Your task to perform on an android device: turn on data saver in the chrome app Image 0: 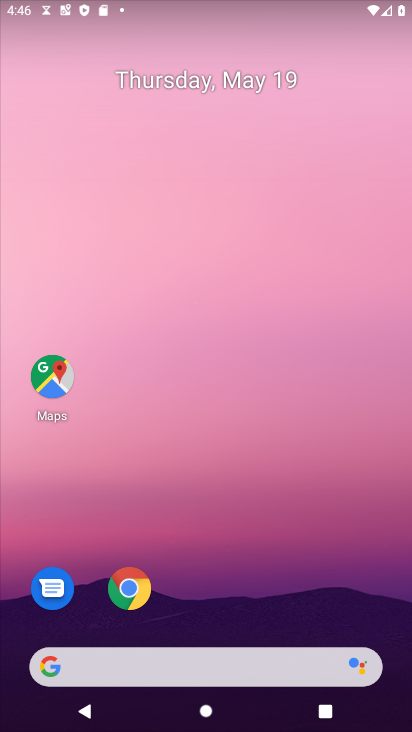
Step 0: click (138, 600)
Your task to perform on an android device: turn on data saver in the chrome app Image 1: 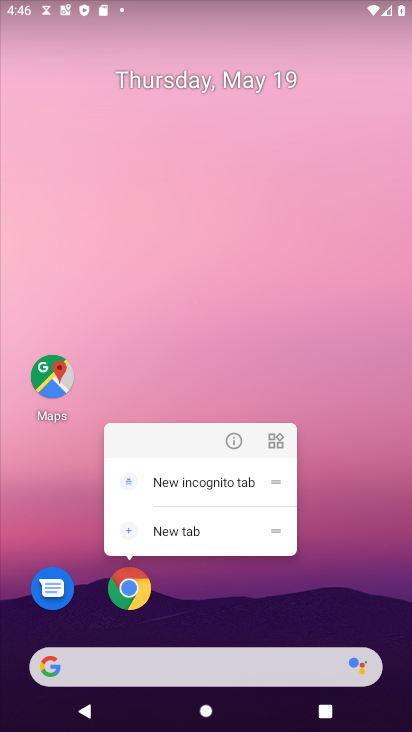
Step 1: click (133, 591)
Your task to perform on an android device: turn on data saver in the chrome app Image 2: 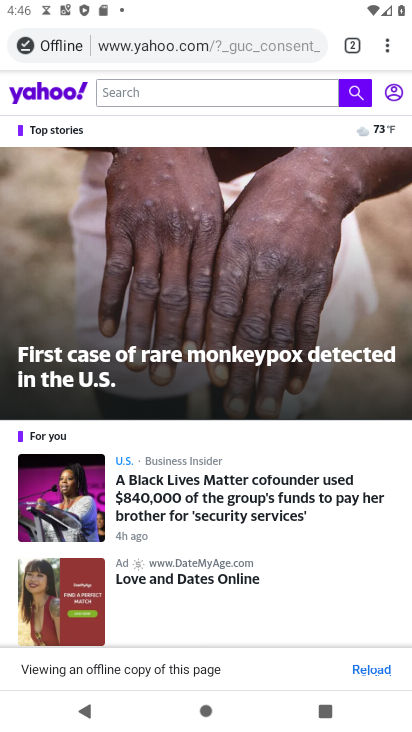
Step 2: click (385, 39)
Your task to perform on an android device: turn on data saver in the chrome app Image 3: 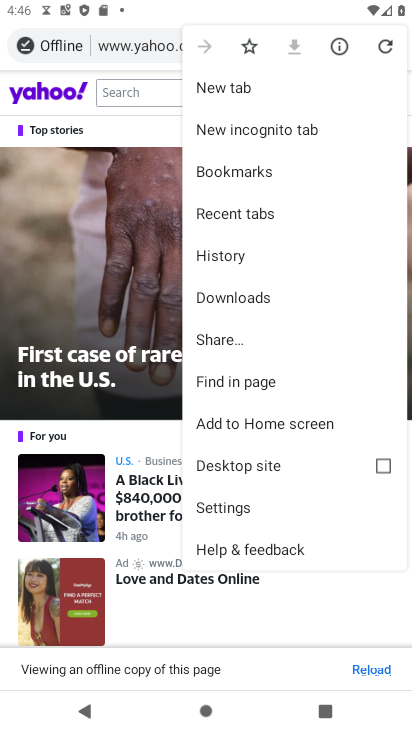
Step 3: click (246, 514)
Your task to perform on an android device: turn on data saver in the chrome app Image 4: 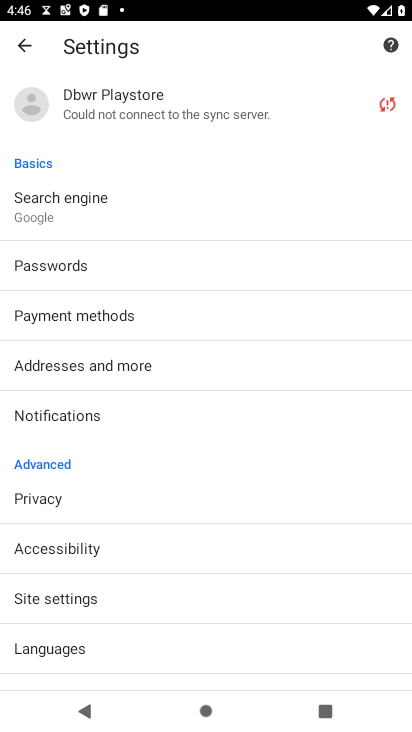
Step 4: drag from (80, 608) to (94, 298)
Your task to perform on an android device: turn on data saver in the chrome app Image 5: 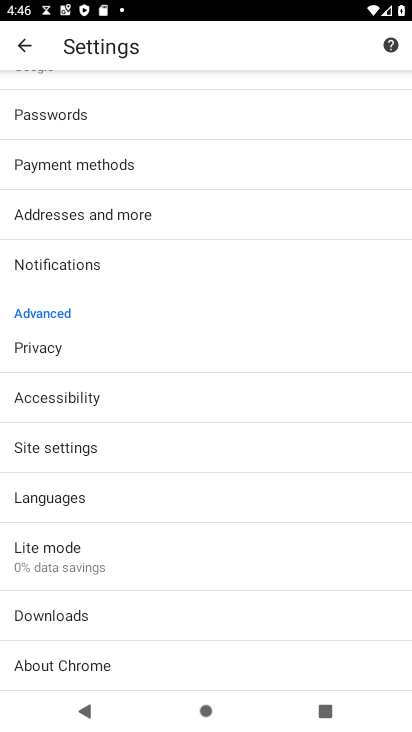
Step 5: click (71, 556)
Your task to perform on an android device: turn on data saver in the chrome app Image 6: 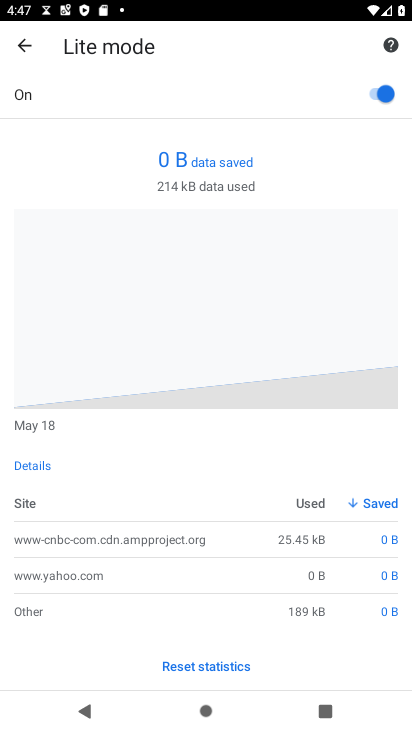
Step 6: task complete